Your task to perform on an android device: create a new album in the google photos Image 0: 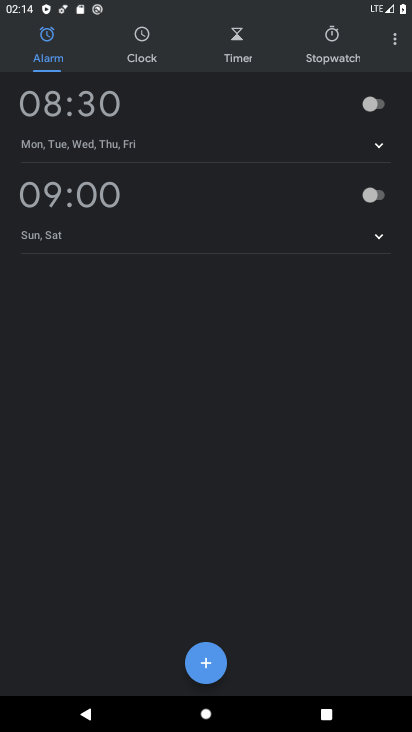
Step 0: press home button
Your task to perform on an android device: create a new album in the google photos Image 1: 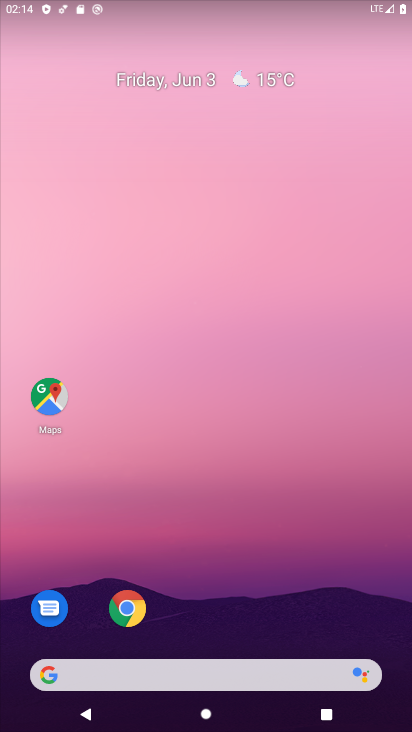
Step 1: drag from (202, 589) to (182, 270)
Your task to perform on an android device: create a new album in the google photos Image 2: 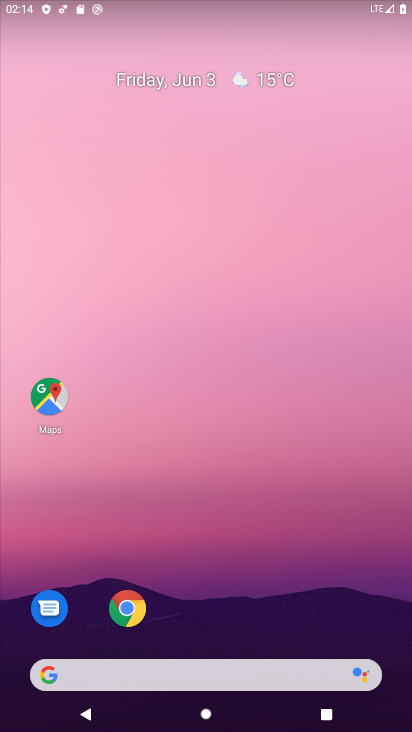
Step 2: drag from (230, 473) to (213, 183)
Your task to perform on an android device: create a new album in the google photos Image 3: 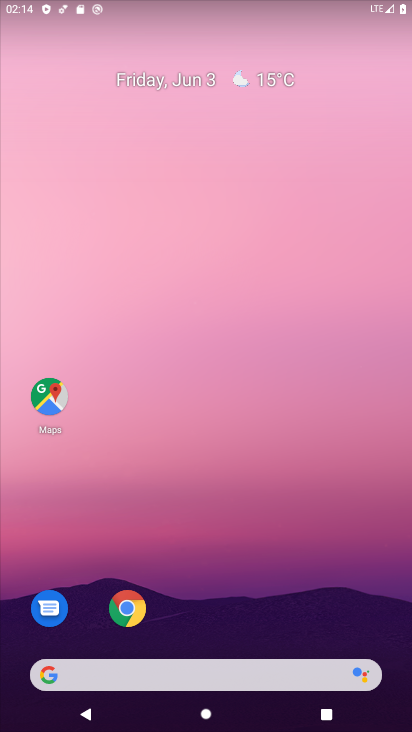
Step 3: drag from (269, 456) to (246, 128)
Your task to perform on an android device: create a new album in the google photos Image 4: 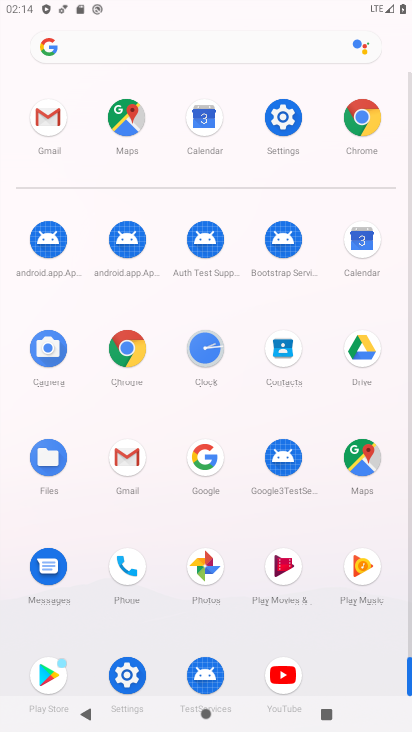
Step 4: click (207, 568)
Your task to perform on an android device: create a new album in the google photos Image 5: 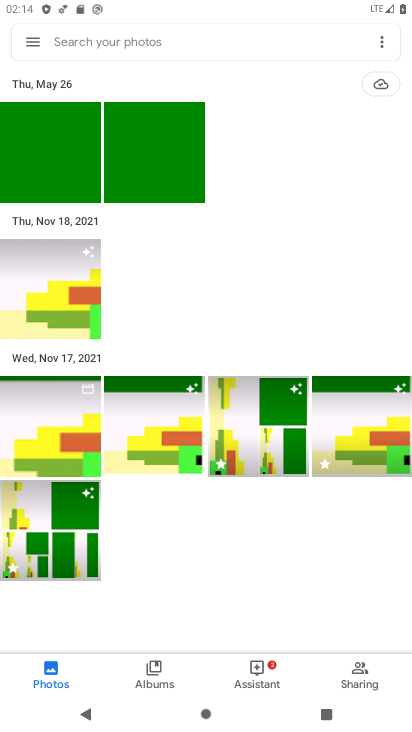
Step 5: click (147, 675)
Your task to perform on an android device: create a new album in the google photos Image 6: 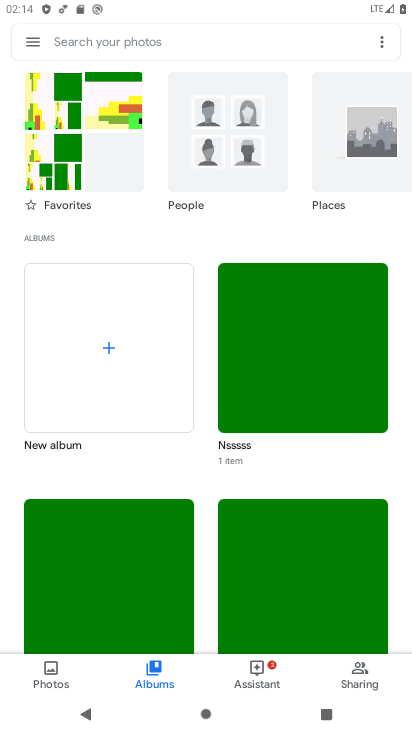
Step 6: click (177, 391)
Your task to perform on an android device: create a new album in the google photos Image 7: 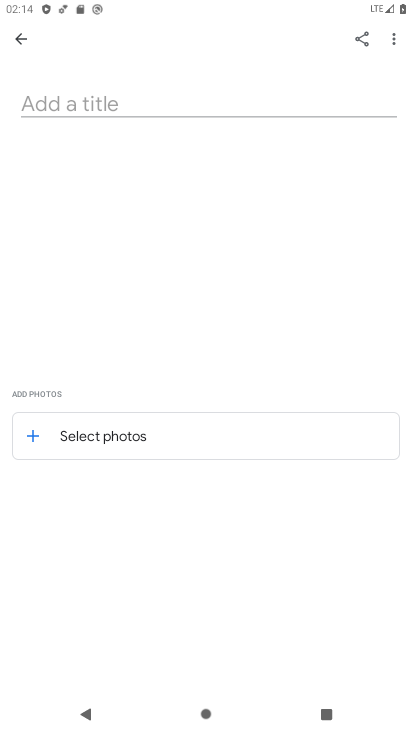
Step 7: click (227, 105)
Your task to perform on an android device: create a new album in the google photos Image 8: 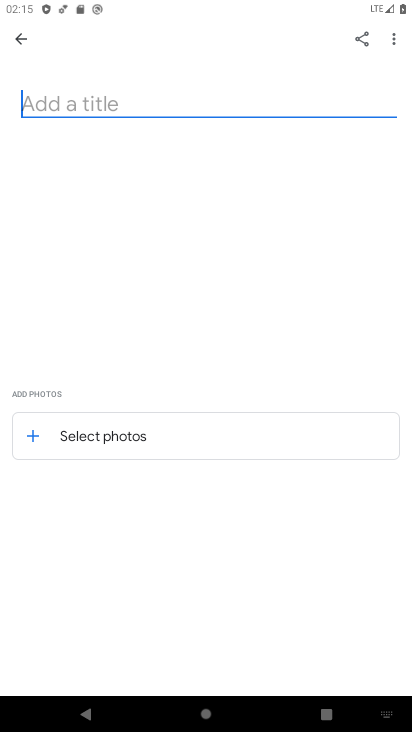
Step 8: type "answer"
Your task to perform on an android device: create a new album in the google photos Image 9: 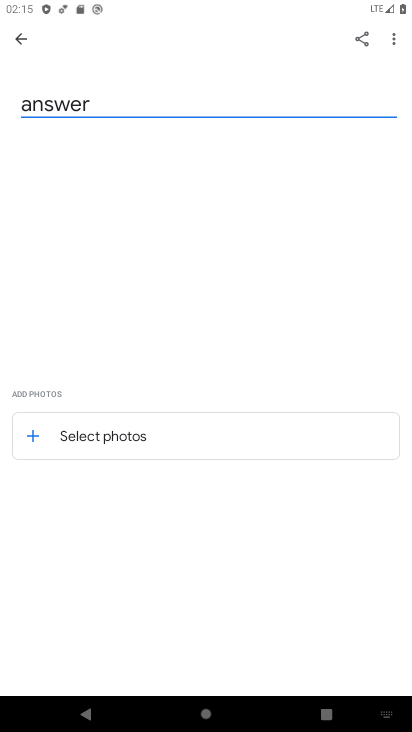
Step 9: click (119, 432)
Your task to perform on an android device: create a new album in the google photos Image 10: 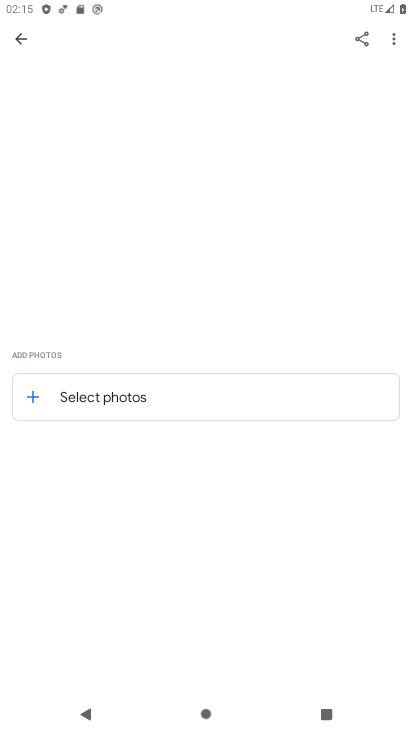
Step 10: click (118, 403)
Your task to perform on an android device: create a new album in the google photos Image 11: 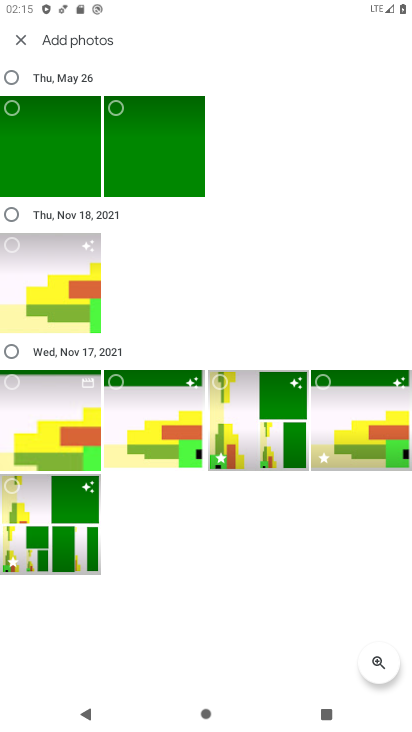
Step 11: click (44, 262)
Your task to perform on an android device: create a new album in the google photos Image 12: 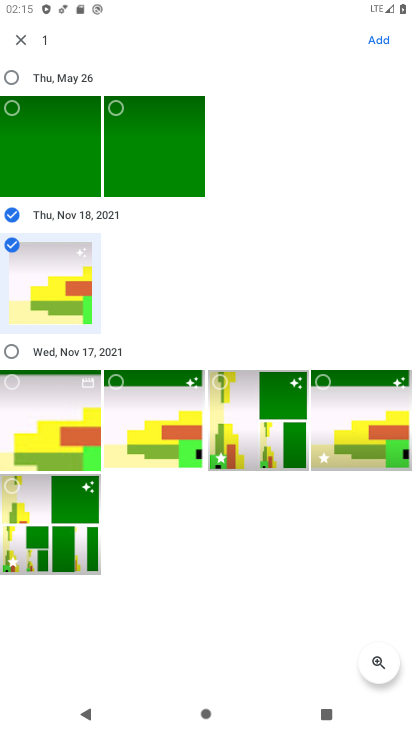
Step 12: click (395, 41)
Your task to perform on an android device: create a new album in the google photos Image 13: 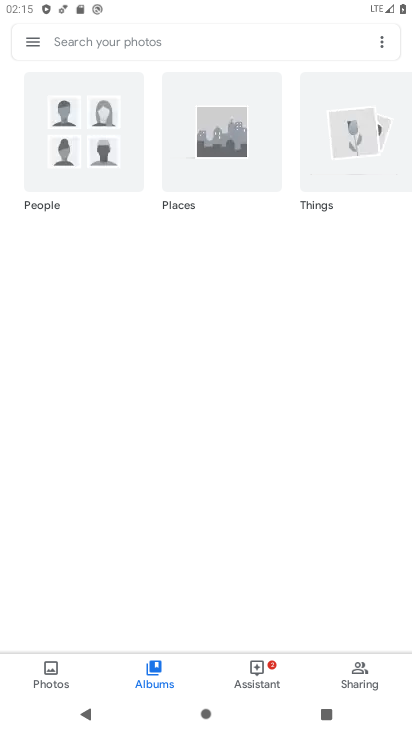
Step 13: task complete